Your task to perform on an android device: open app "Adobe Express: Graphic Design" (install if not already installed) Image 0: 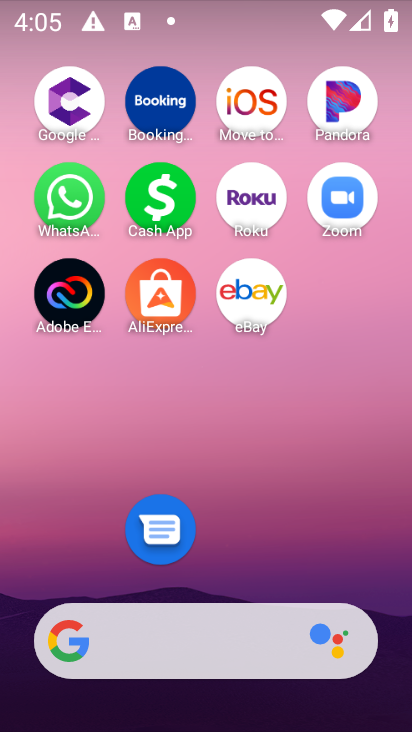
Step 0: drag from (250, 636) to (348, 57)
Your task to perform on an android device: open app "Adobe Express: Graphic Design" (install if not already installed) Image 1: 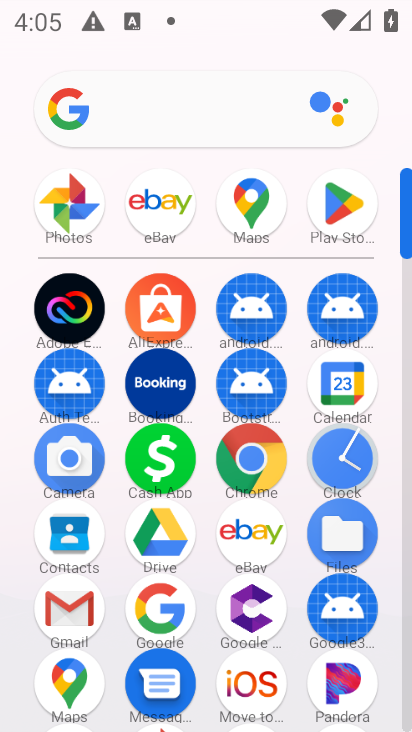
Step 1: click (345, 208)
Your task to perform on an android device: open app "Adobe Express: Graphic Design" (install if not already installed) Image 2: 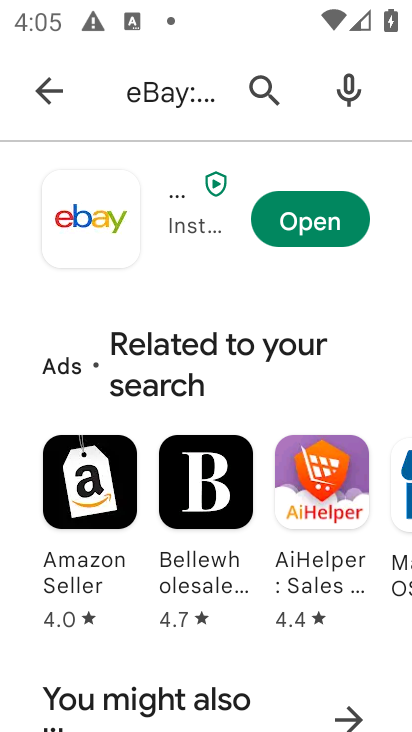
Step 2: press back button
Your task to perform on an android device: open app "Adobe Express: Graphic Design" (install if not already installed) Image 3: 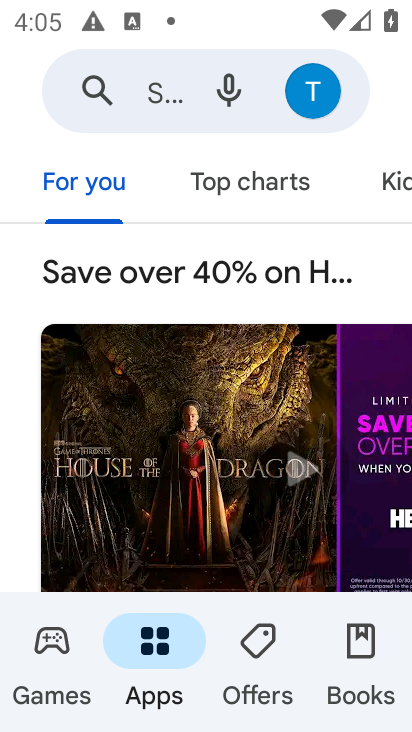
Step 3: click (137, 102)
Your task to perform on an android device: open app "Adobe Express: Graphic Design" (install if not already installed) Image 4: 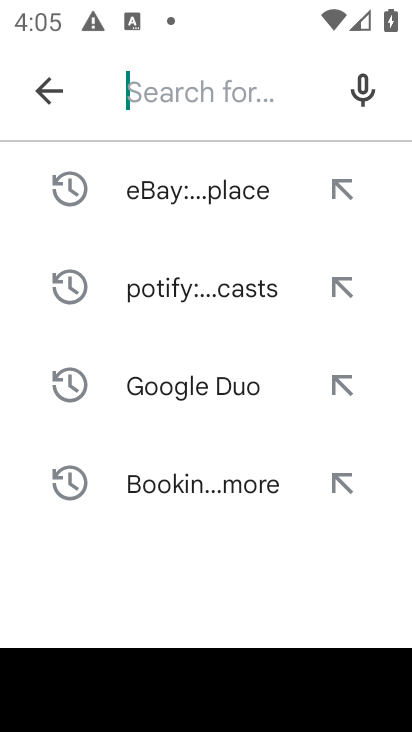
Step 4: type "Adobe Express: Graphic Design"
Your task to perform on an android device: open app "Adobe Express: Graphic Design" (install if not already installed) Image 5: 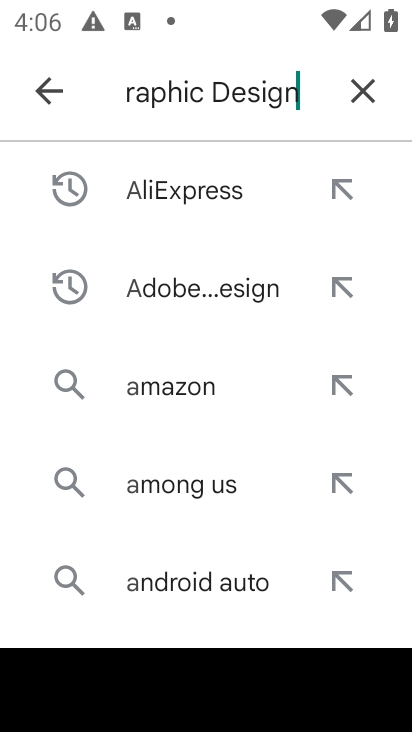
Step 5: press enter
Your task to perform on an android device: open app "Adobe Express: Graphic Design" (install if not already installed) Image 6: 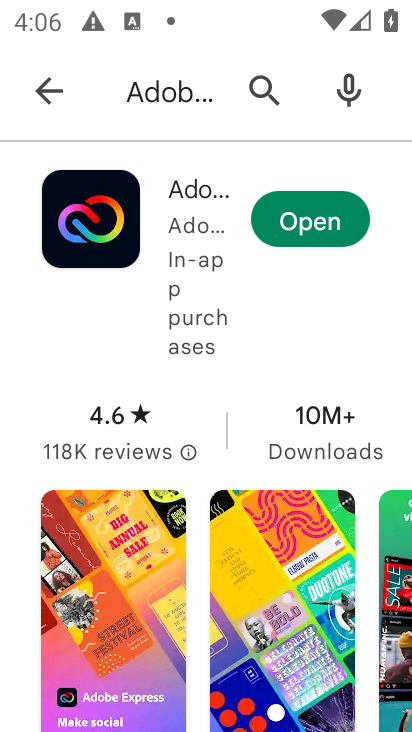
Step 6: click (313, 221)
Your task to perform on an android device: open app "Adobe Express: Graphic Design" (install if not already installed) Image 7: 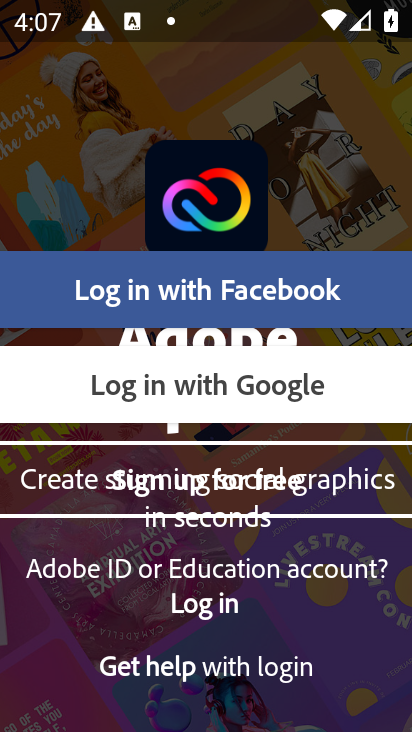
Step 7: task complete